Your task to perform on an android device: What's on my calendar tomorrow? Image 0: 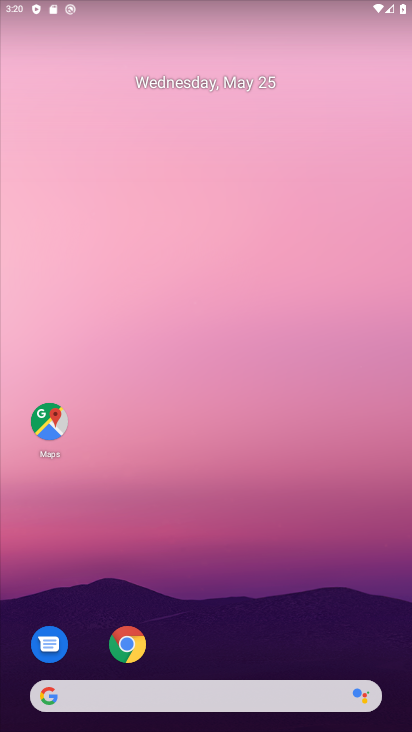
Step 0: drag from (327, 658) to (305, 13)
Your task to perform on an android device: What's on my calendar tomorrow? Image 1: 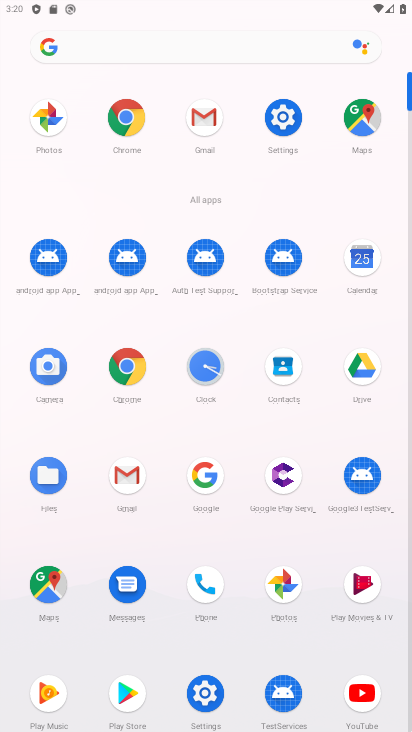
Step 1: click (350, 261)
Your task to perform on an android device: What's on my calendar tomorrow? Image 2: 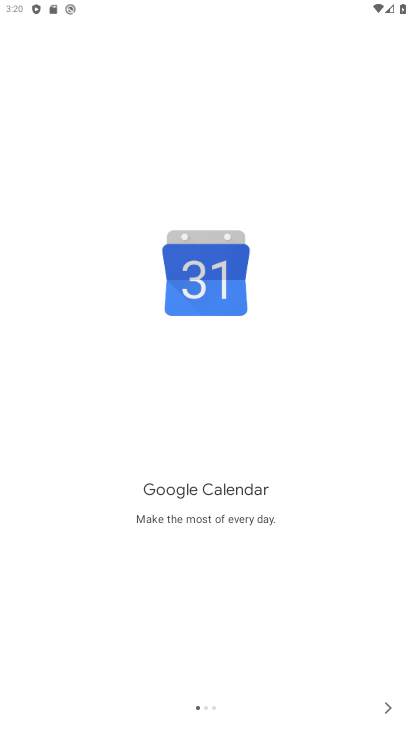
Step 2: click (392, 707)
Your task to perform on an android device: What's on my calendar tomorrow? Image 3: 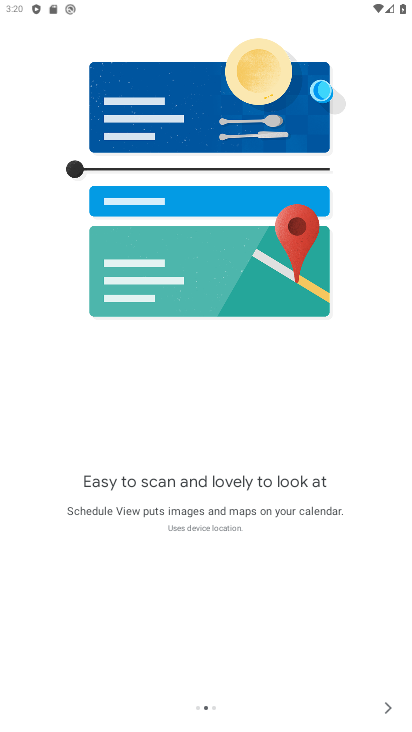
Step 3: click (392, 707)
Your task to perform on an android device: What's on my calendar tomorrow? Image 4: 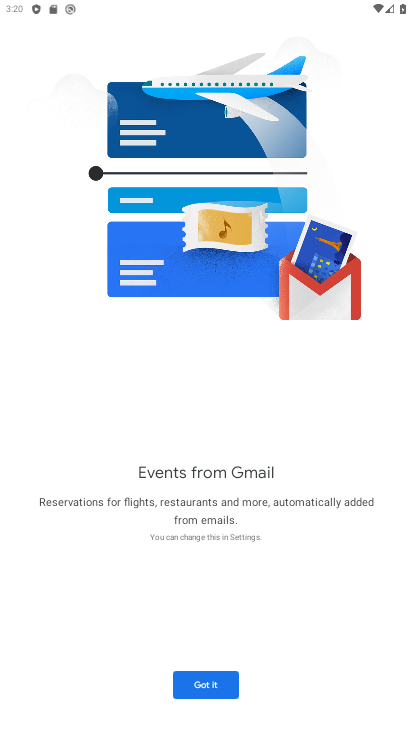
Step 4: click (212, 686)
Your task to perform on an android device: What's on my calendar tomorrow? Image 5: 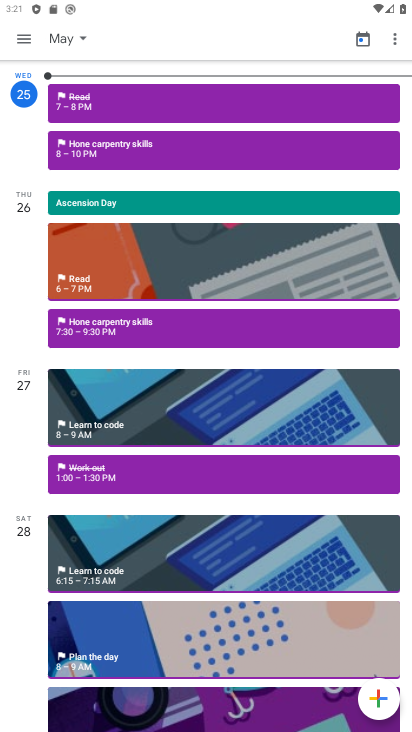
Step 5: click (140, 329)
Your task to perform on an android device: What's on my calendar tomorrow? Image 6: 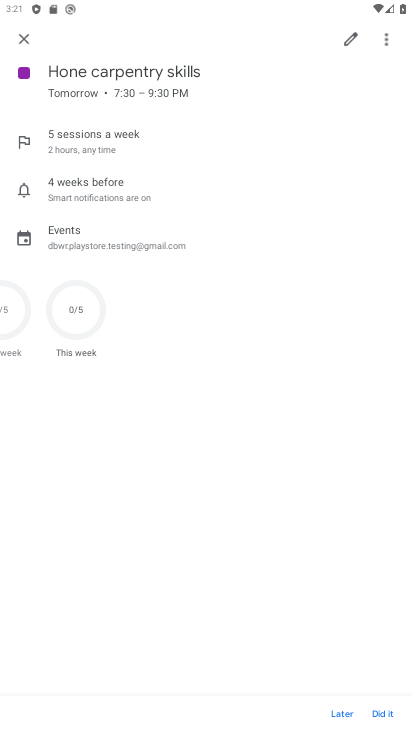
Step 6: task complete